Your task to perform on an android device: View the shopping cart on amazon. Search for razer nari on amazon, select the first entry, add it to the cart, then select checkout. Image 0: 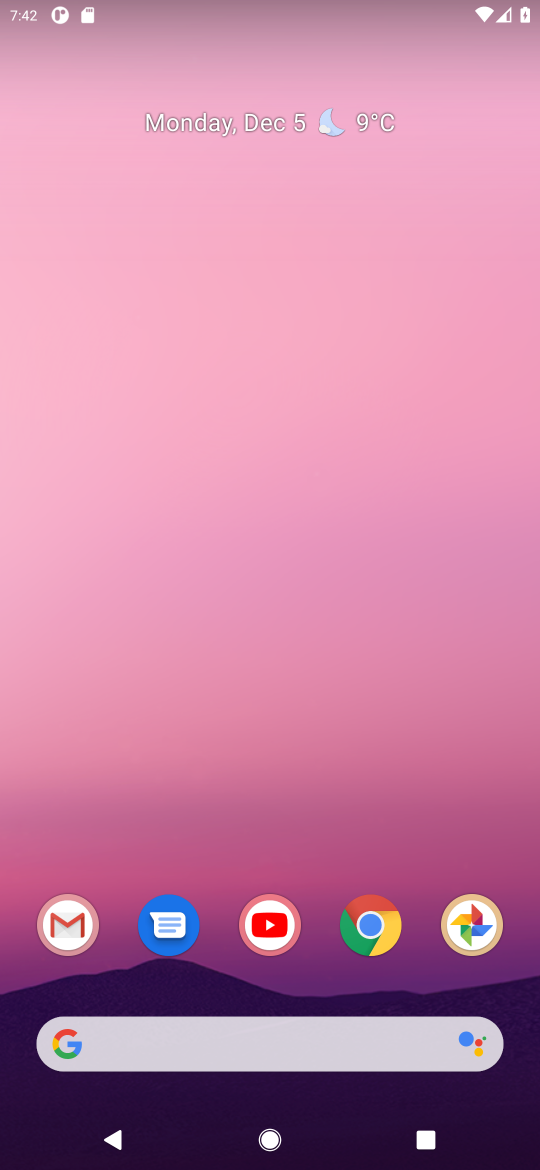
Step 0: click (377, 926)
Your task to perform on an android device: View the shopping cart on amazon. Search for razer nari on amazon, select the first entry, add it to the cart, then select checkout. Image 1: 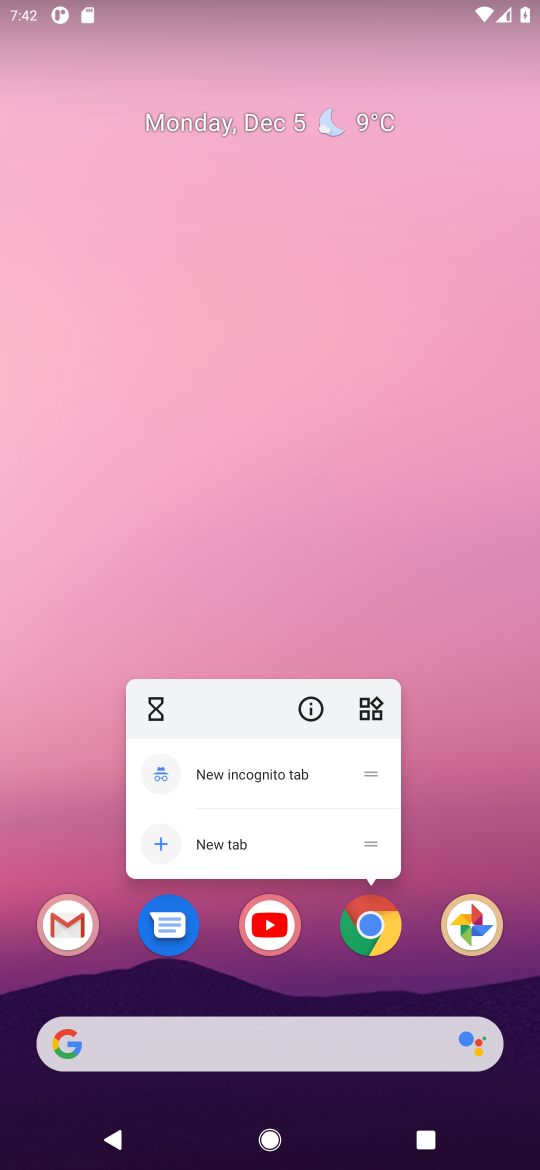
Step 1: click (377, 928)
Your task to perform on an android device: View the shopping cart on amazon. Search for razer nari on amazon, select the first entry, add it to the cart, then select checkout. Image 2: 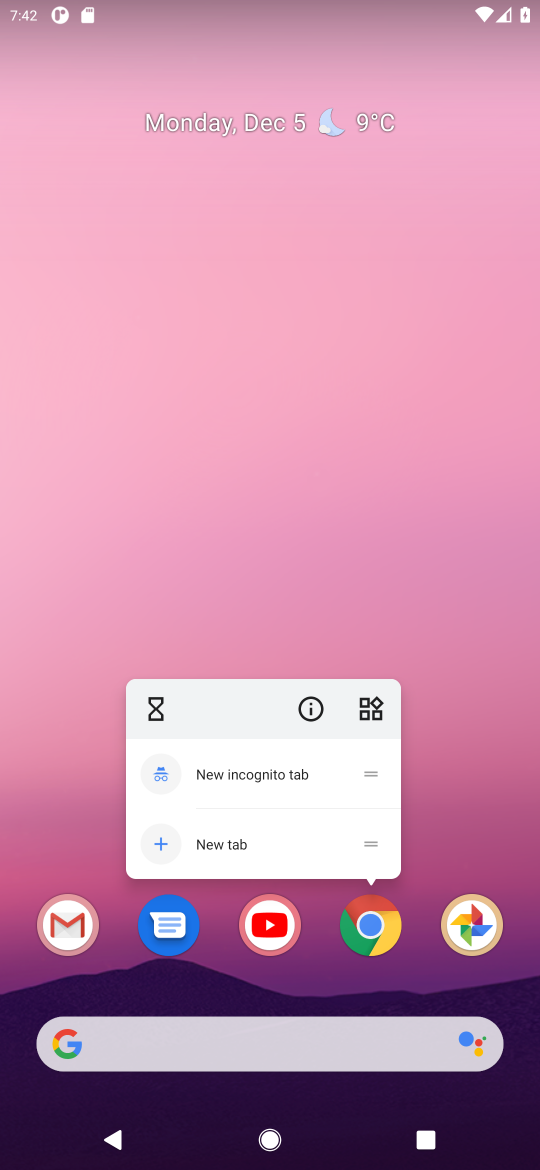
Step 2: click (373, 935)
Your task to perform on an android device: View the shopping cart on amazon. Search for razer nari on amazon, select the first entry, add it to the cart, then select checkout. Image 3: 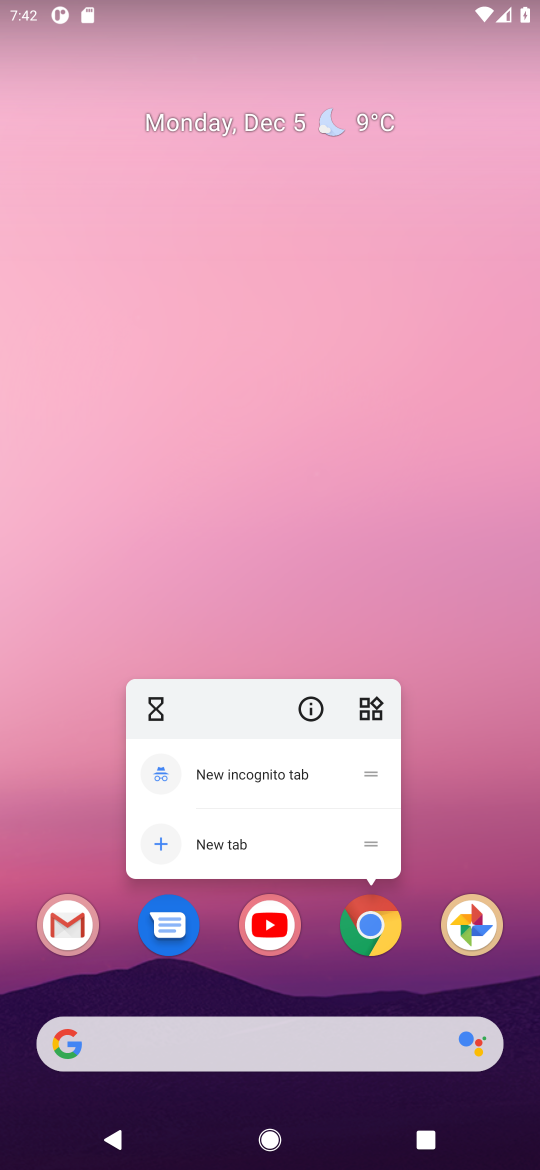
Step 3: click (377, 923)
Your task to perform on an android device: View the shopping cart on amazon. Search for razer nari on amazon, select the first entry, add it to the cart, then select checkout. Image 4: 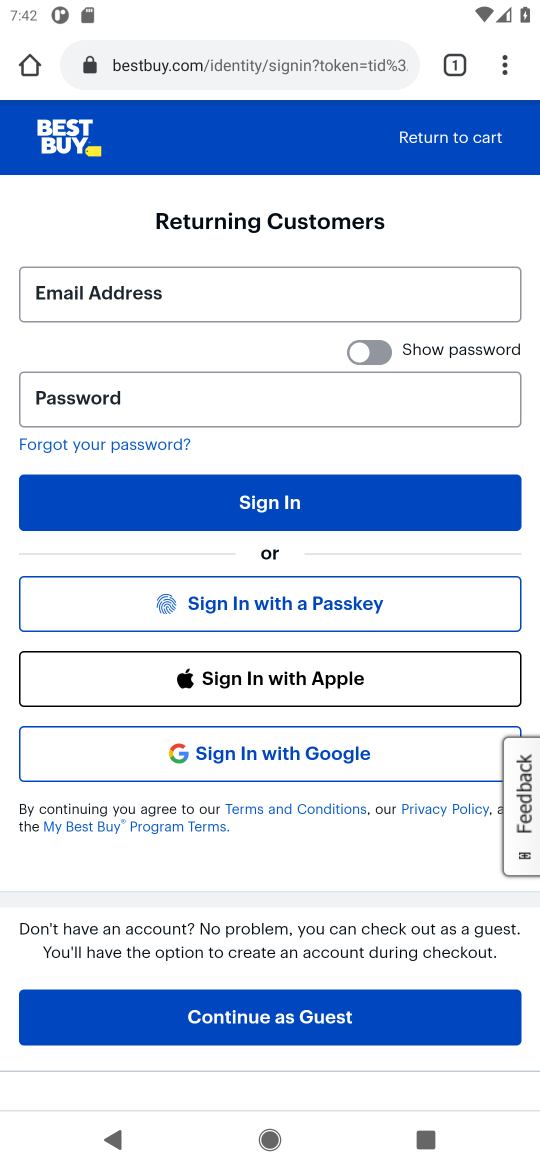
Step 4: click (215, 64)
Your task to perform on an android device: View the shopping cart on amazon. Search for razer nari on amazon, select the first entry, add it to the cart, then select checkout. Image 5: 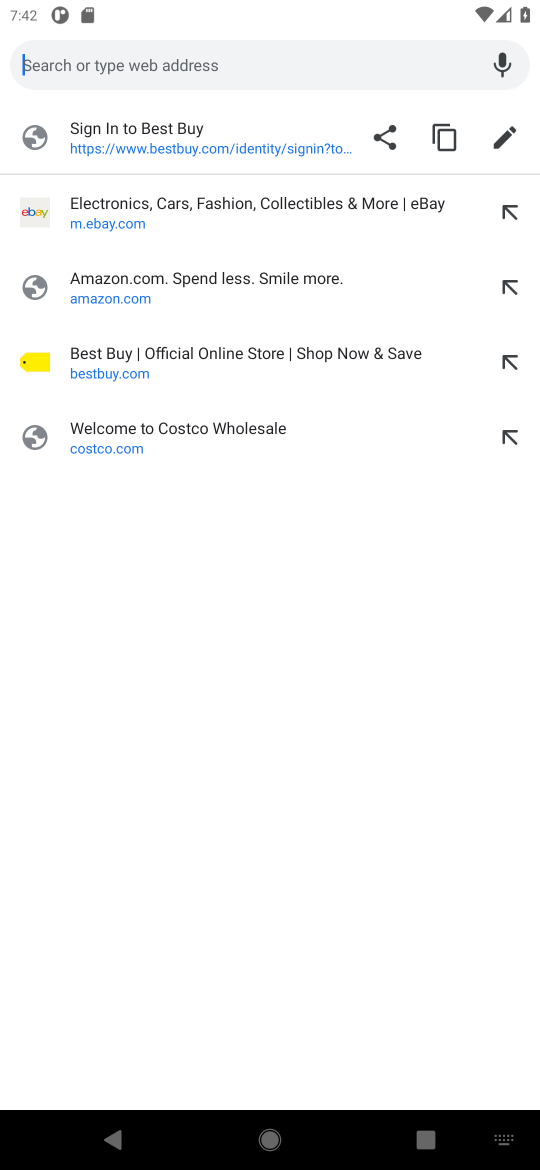
Step 5: click (87, 289)
Your task to perform on an android device: View the shopping cart on amazon. Search for razer nari on amazon, select the first entry, add it to the cart, then select checkout. Image 6: 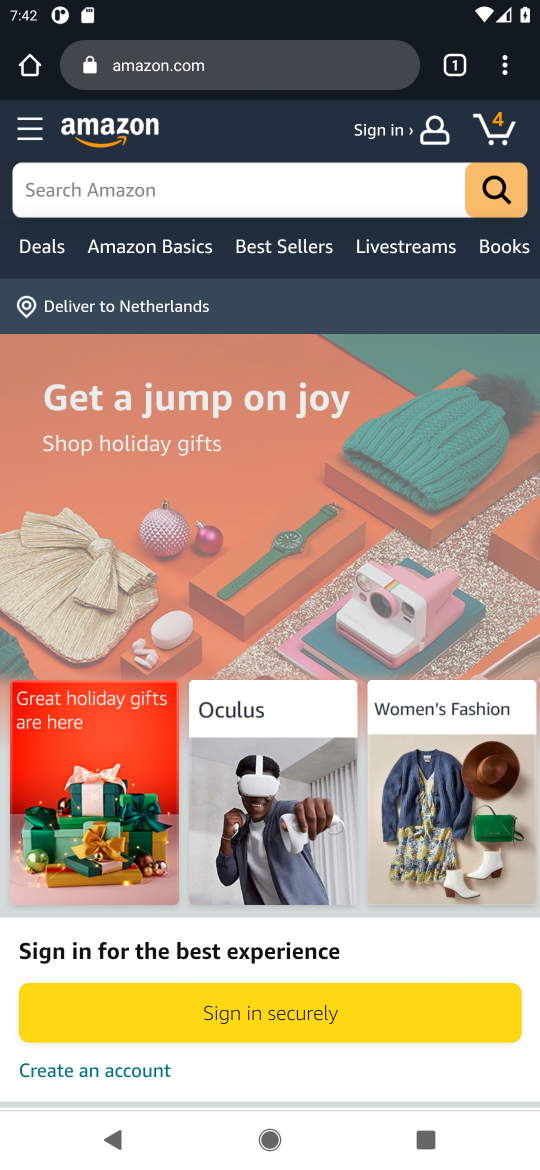
Step 6: click (495, 127)
Your task to perform on an android device: View the shopping cart on amazon. Search for razer nari on amazon, select the first entry, add it to the cart, then select checkout. Image 7: 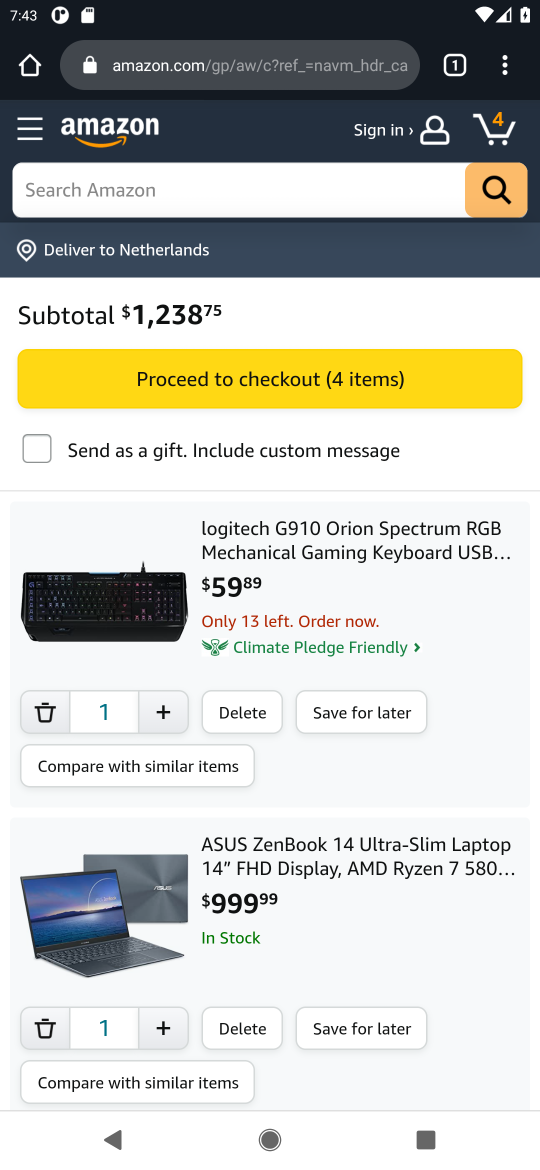
Step 7: click (281, 185)
Your task to perform on an android device: View the shopping cart on amazon. Search for razer nari on amazon, select the first entry, add it to the cart, then select checkout. Image 8: 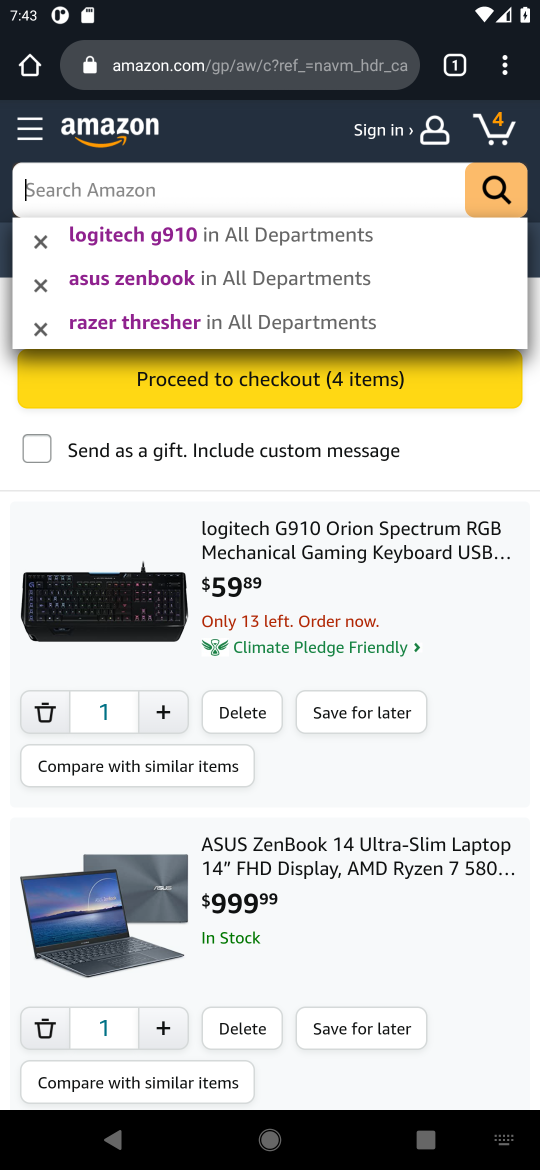
Step 8: type "razer nari "
Your task to perform on an android device: View the shopping cart on amazon. Search for razer nari on amazon, select the first entry, add it to the cart, then select checkout. Image 9: 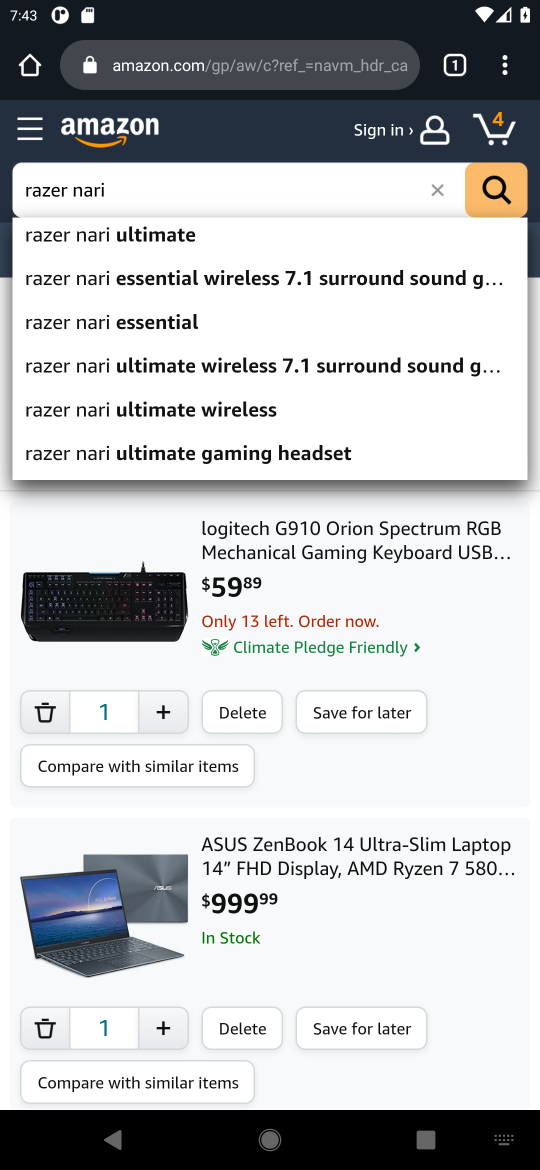
Step 9: click (499, 185)
Your task to perform on an android device: View the shopping cart on amazon. Search for razer nari on amazon, select the first entry, add it to the cart, then select checkout. Image 10: 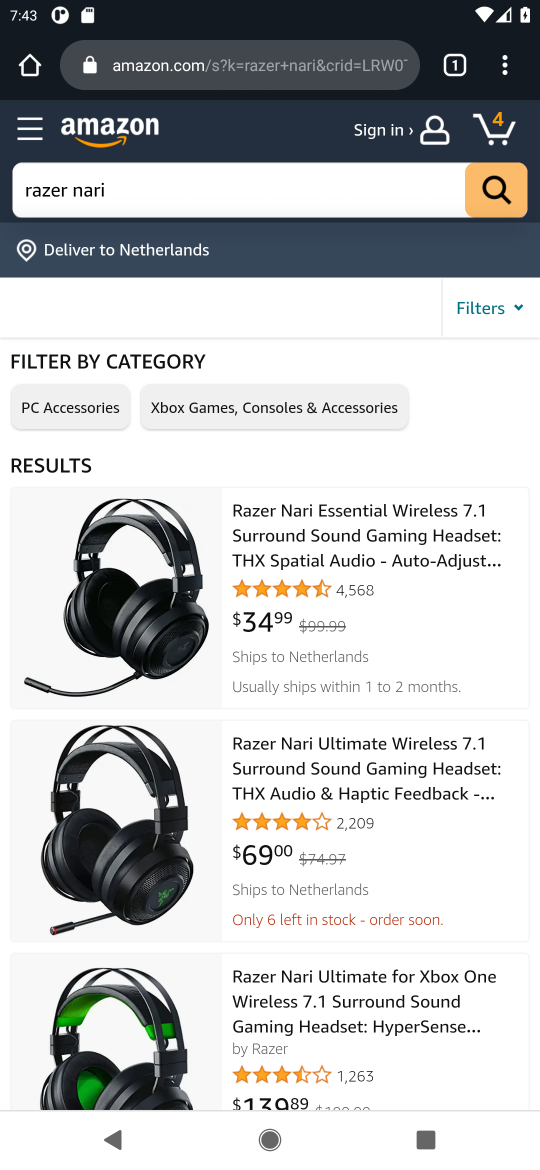
Step 10: click (303, 542)
Your task to perform on an android device: View the shopping cart on amazon. Search for razer nari on amazon, select the first entry, add it to the cart, then select checkout. Image 11: 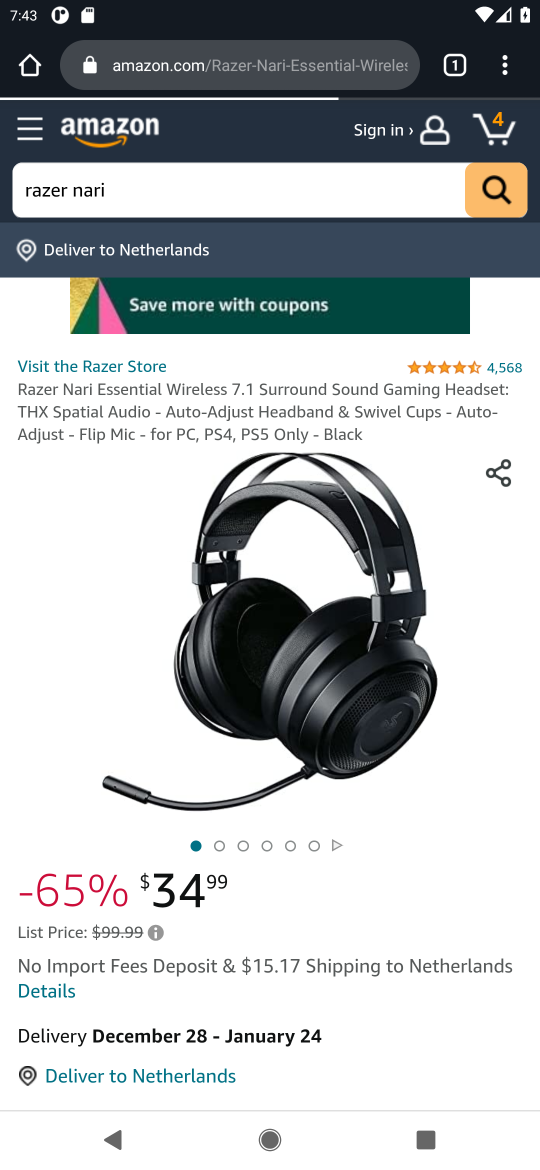
Step 11: drag from (305, 924) to (324, 481)
Your task to perform on an android device: View the shopping cart on amazon. Search for razer nari on amazon, select the first entry, add it to the cart, then select checkout. Image 12: 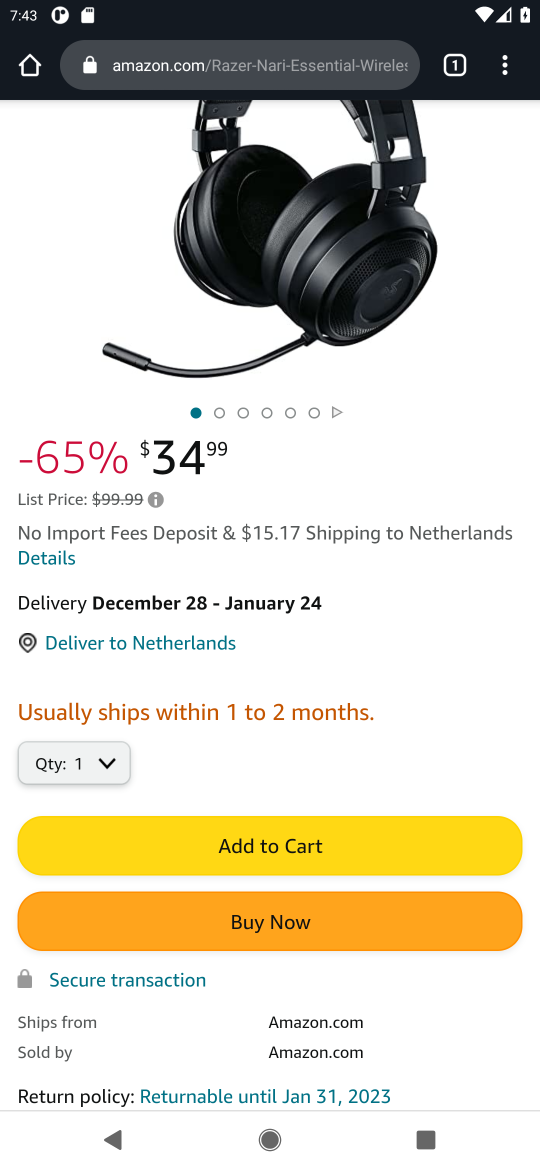
Step 12: click (299, 822)
Your task to perform on an android device: View the shopping cart on amazon. Search for razer nari on amazon, select the first entry, add it to the cart, then select checkout. Image 13: 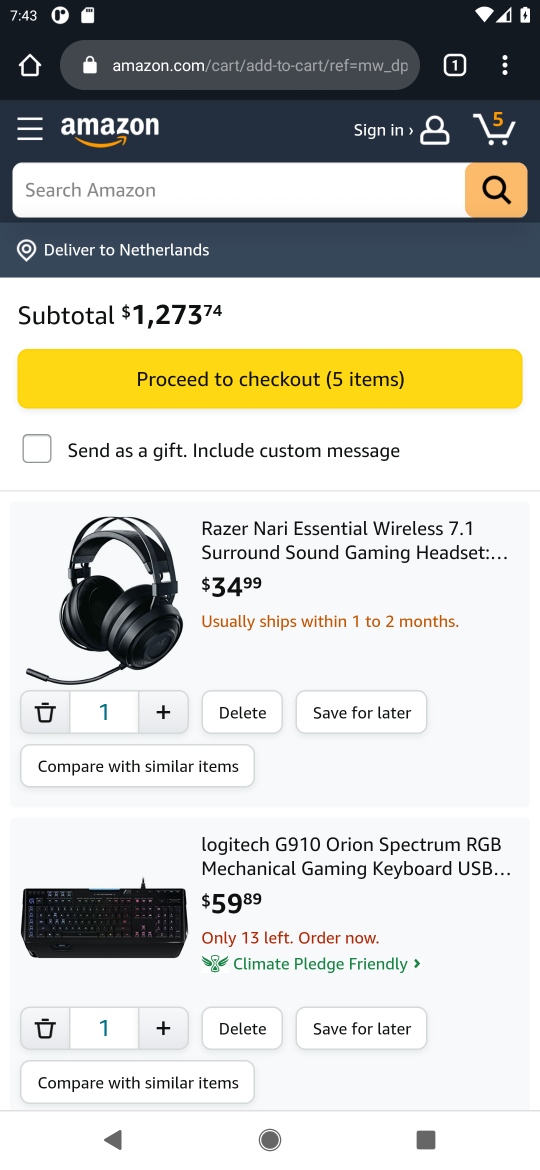
Step 13: click (277, 383)
Your task to perform on an android device: View the shopping cart on amazon. Search for razer nari on amazon, select the first entry, add it to the cart, then select checkout. Image 14: 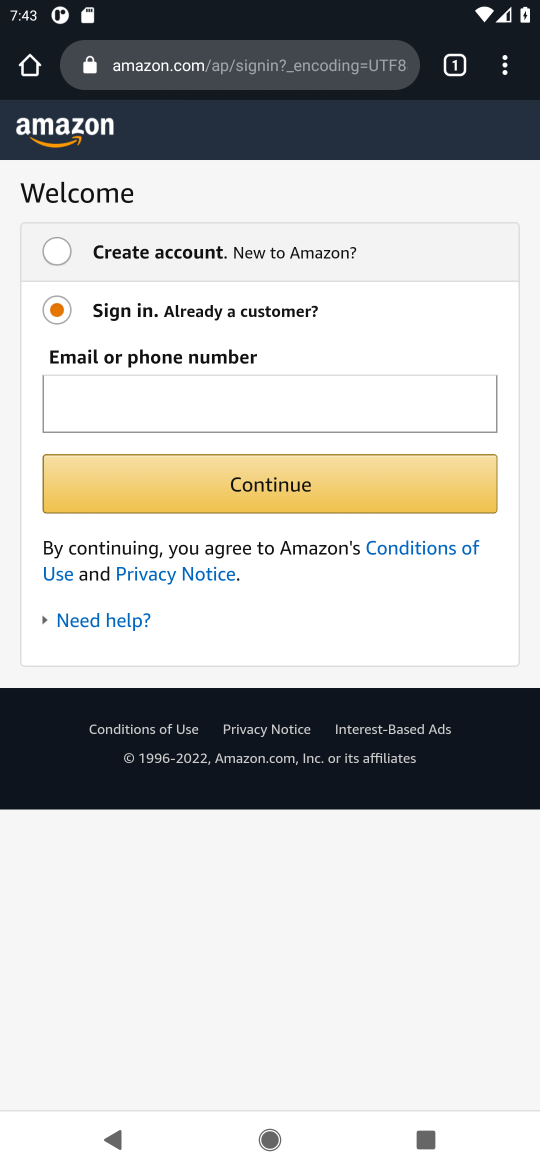
Step 14: task complete